Your task to perform on an android device: Show me popular games on the Play Store Image 0: 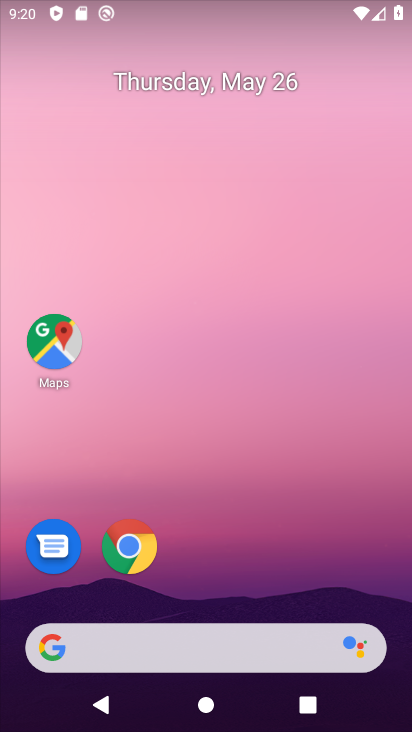
Step 0: drag from (332, 566) to (259, 136)
Your task to perform on an android device: Show me popular games on the Play Store Image 1: 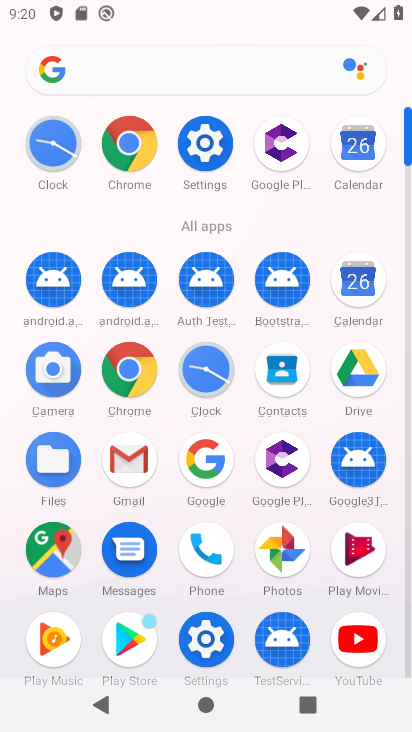
Step 1: click (115, 643)
Your task to perform on an android device: Show me popular games on the Play Store Image 2: 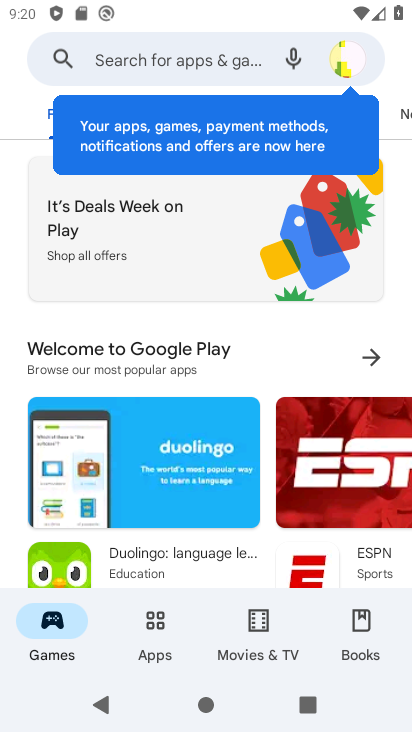
Step 2: click (154, 645)
Your task to perform on an android device: Show me popular games on the Play Store Image 3: 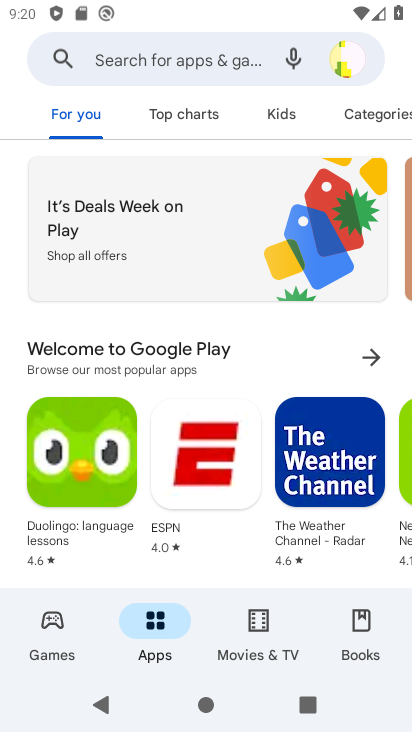
Step 3: click (367, 113)
Your task to perform on an android device: Show me popular games on the Play Store Image 4: 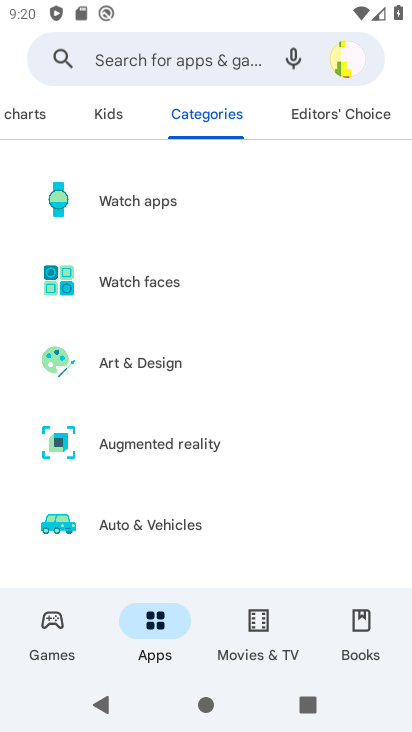
Step 4: click (41, 623)
Your task to perform on an android device: Show me popular games on the Play Store Image 5: 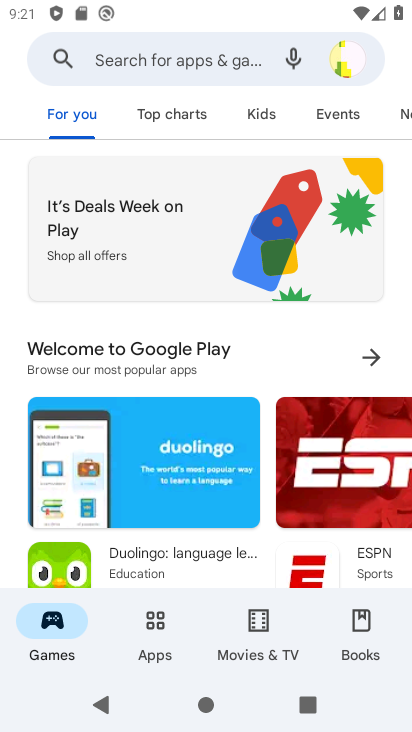
Step 5: click (157, 117)
Your task to perform on an android device: Show me popular games on the Play Store Image 6: 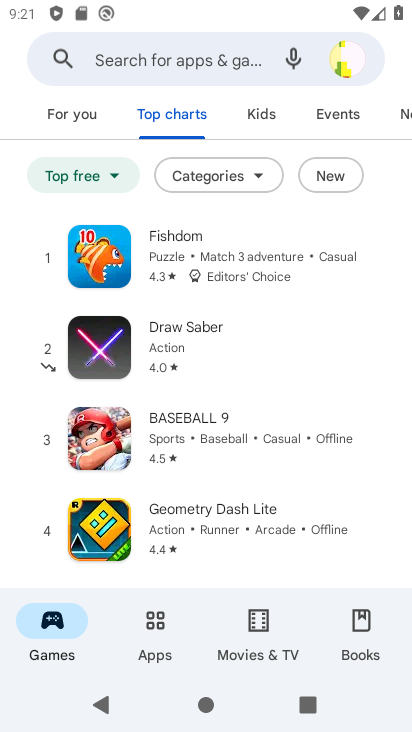
Step 6: task complete